Your task to perform on an android device: set the timer Image 0: 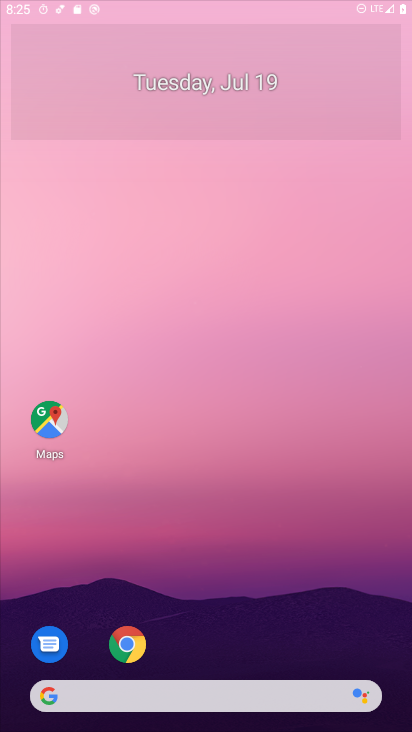
Step 0: click (176, 65)
Your task to perform on an android device: set the timer Image 1: 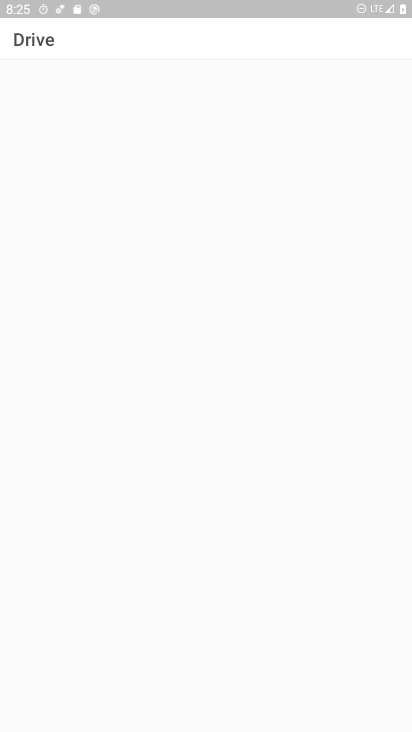
Step 1: drag from (25, 706) to (113, 118)
Your task to perform on an android device: set the timer Image 2: 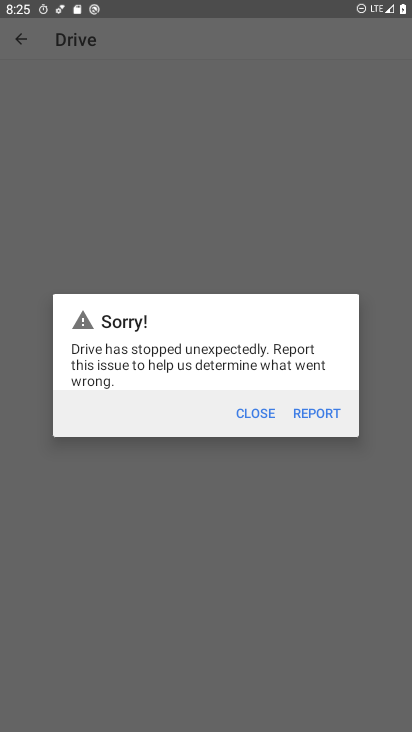
Step 2: press home button
Your task to perform on an android device: set the timer Image 3: 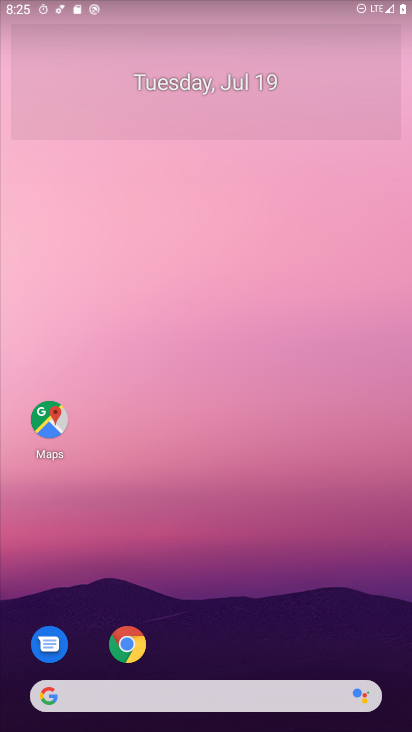
Step 3: drag from (24, 715) to (222, 65)
Your task to perform on an android device: set the timer Image 4: 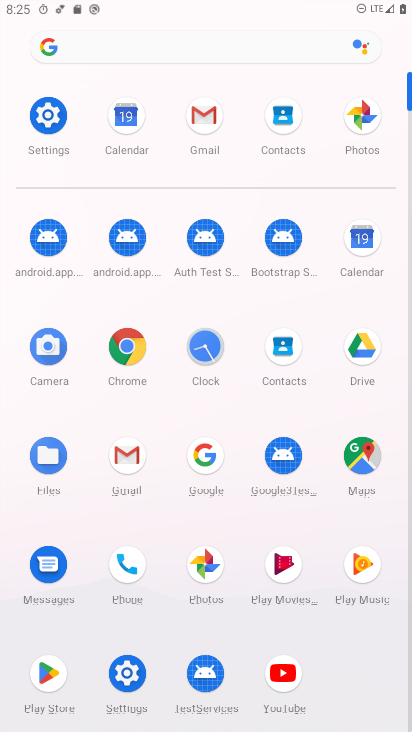
Step 4: click (202, 346)
Your task to perform on an android device: set the timer Image 5: 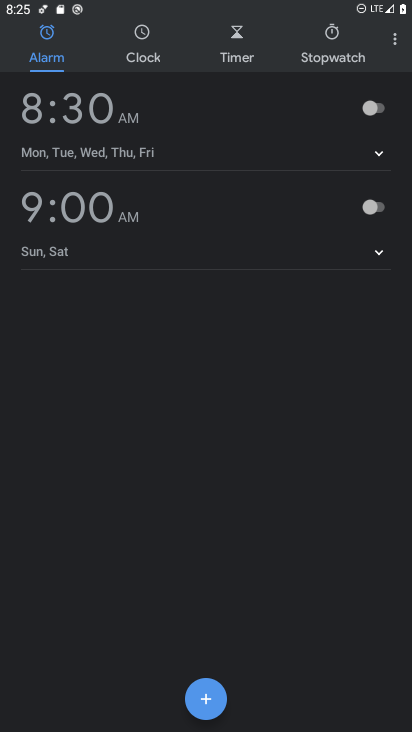
Step 5: click (245, 43)
Your task to perform on an android device: set the timer Image 6: 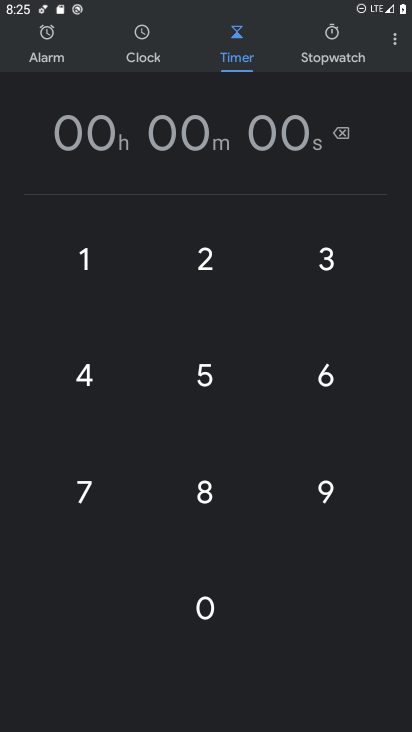
Step 6: click (183, 173)
Your task to perform on an android device: set the timer Image 7: 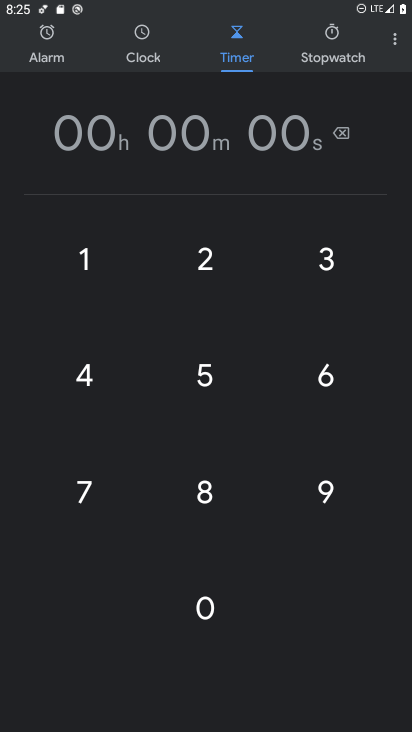
Step 7: click (193, 244)
Your task to perform on an android device: set the timer Image 8: 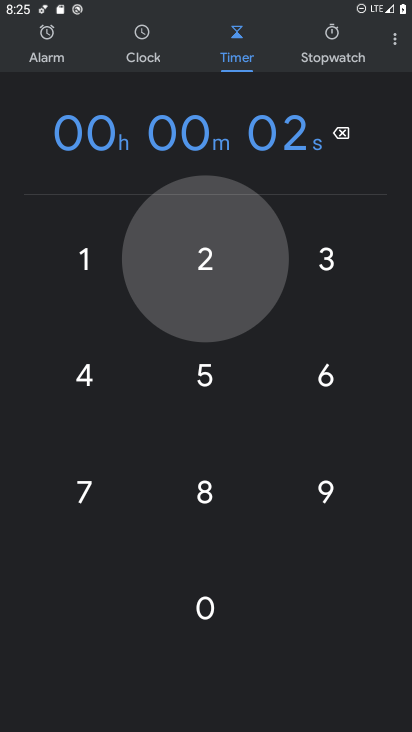
Step 8: click (197, 344)
Your task to perform on an android device: set the timer Image 9: 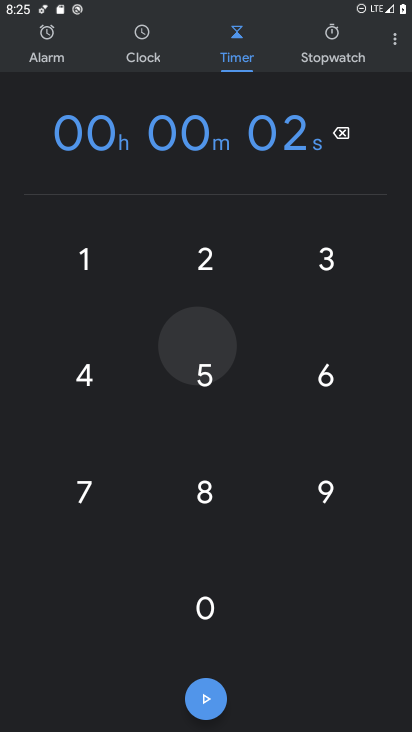
Step 9: click (218, 440)
Your task to perform on an android device: set the timer Image 10: 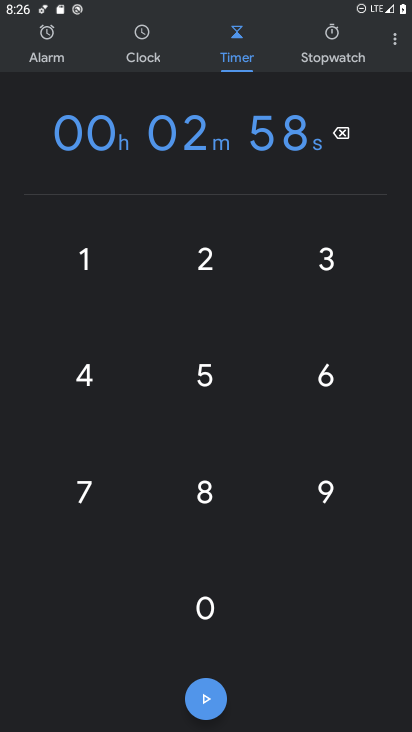
Step 10: click (103, 322)
Your task to perform on an android device: set the timer Image 11: 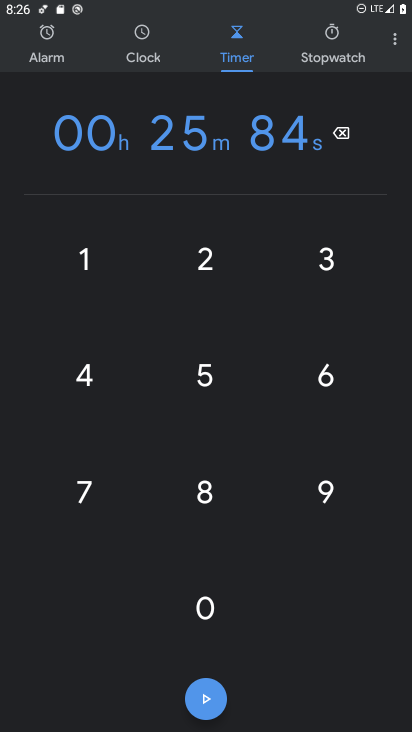
Step 11: click (197, 696)
Your task to perform on an android device: set the timer Image 12: 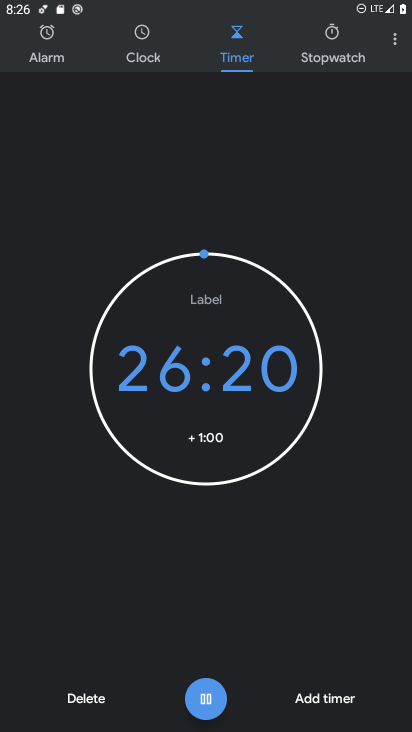
Step 12: click (195, 698)
Your task to perform on an android device: set the timer Image 13: 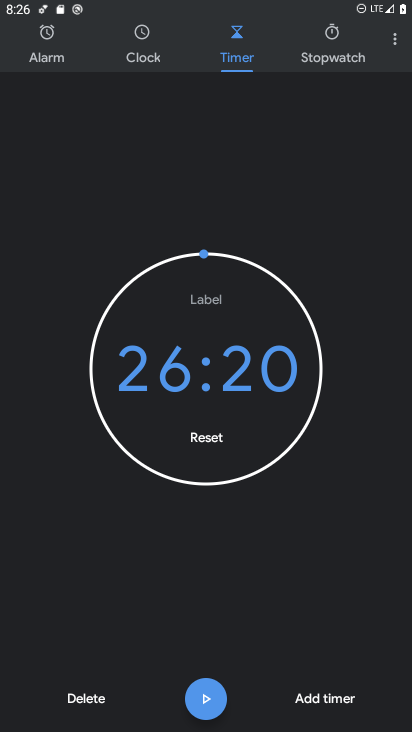
Step 13: task complete